Your task to perform on an android device: When is my next appointment? Image 0: 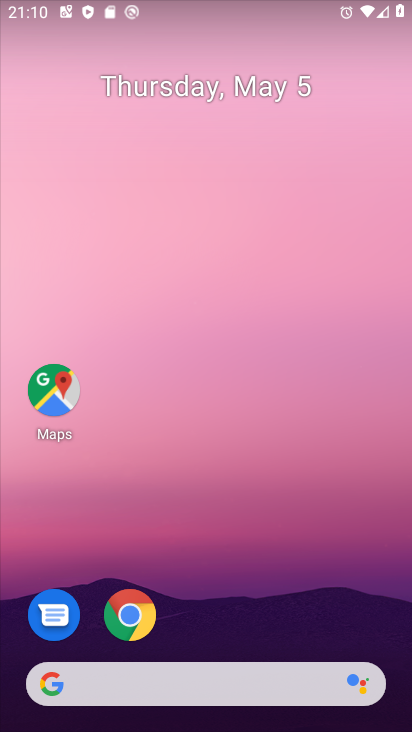
Step 0: drag from (211, 574) to (299, 123)
Your task to perform on an android device: When is my next appointment? Image 1: 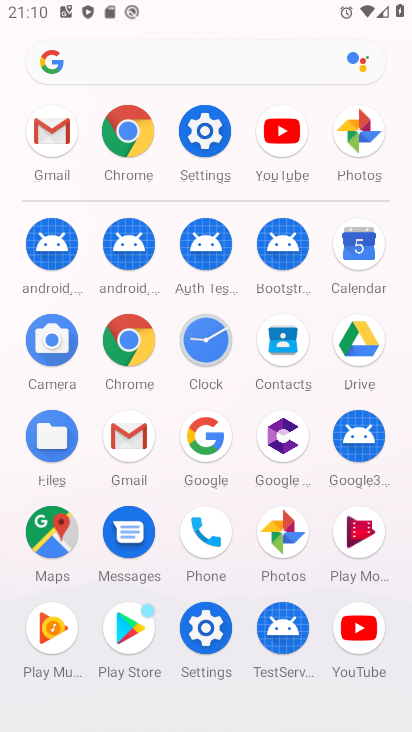
Step 1: click (337, 280)
Your task to perform on an android device: When is my next appointment? Image 2: 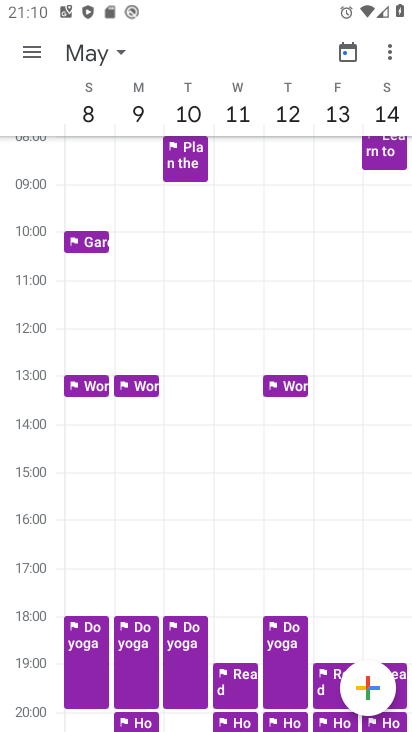
Step 2: click (33, 54)
Your task to perform on an android device: When is my next appointment? Image 3: 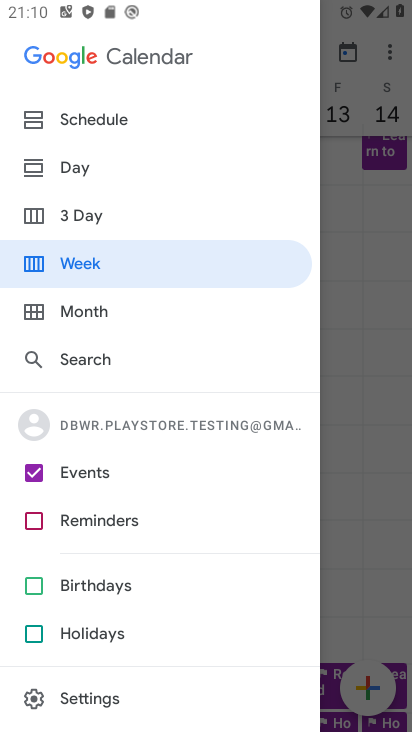
Step 3: click (87, 118)
Your task to perform on an android device: When is my next appointment? Image 4: 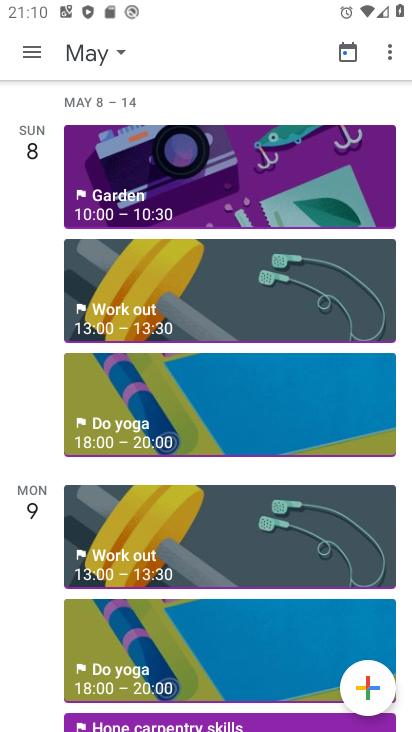
Step 4: drag from (159, 645) to (217, 295)
Your task to perform on an android device: When is my next appointment? Image 5: 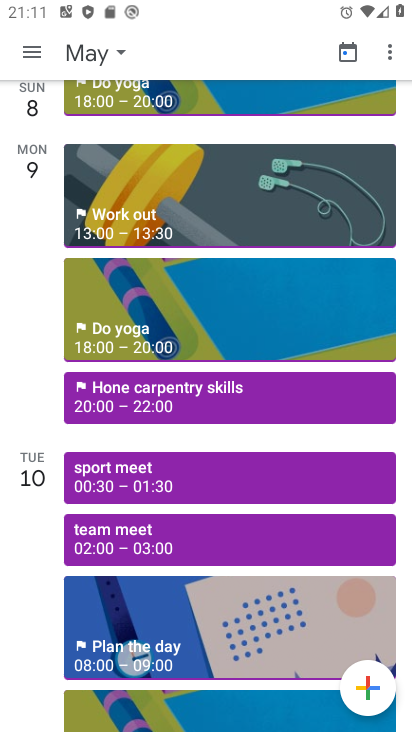
Step 5: click (199, 485)
Your task to perform on an android device: When is my next appointment? Image 6: 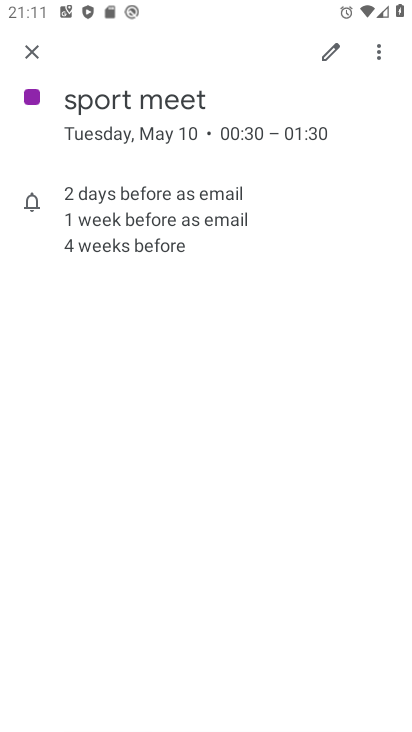
Step 6: task complete